Your task to perform on an android device: empty trash in the gmail app Image 0: 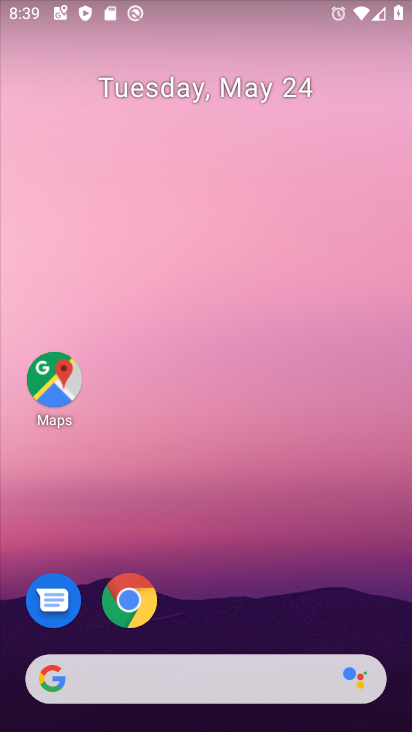
Step 0: drag from (196, 693) to (138, 84)
Your task to perform on an android device: empty trash in the gmail app Image 1: 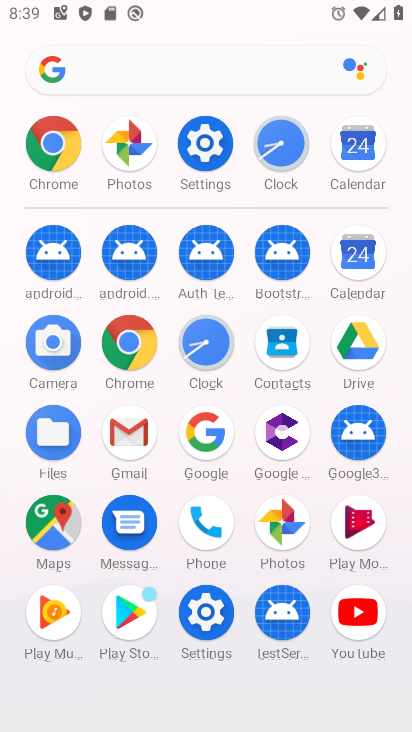
Step 1: click (125, 427)
Your task to perform on an android device: empty trash in the gmail app Image 2: 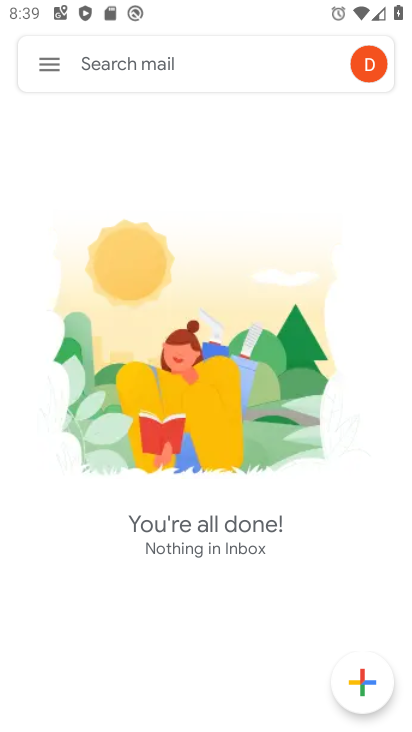
Step 2: click (47, 64)
Your task to perform on an android device: empty trash in the gmail app Image 3: 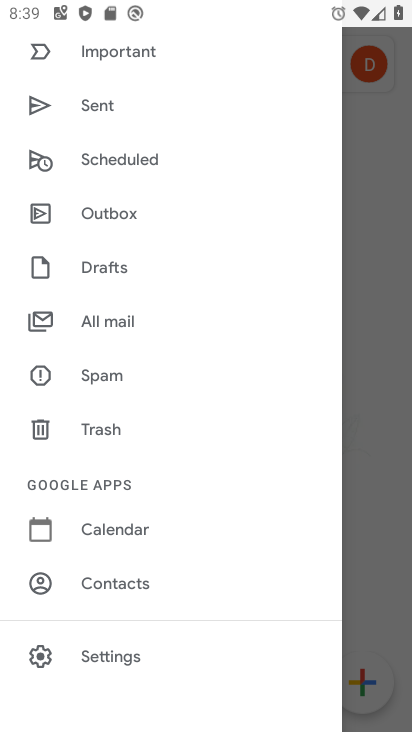
Step 3: click (87, 429)
Your task to perform on an android device: empty trash in the gmail app Image 4: 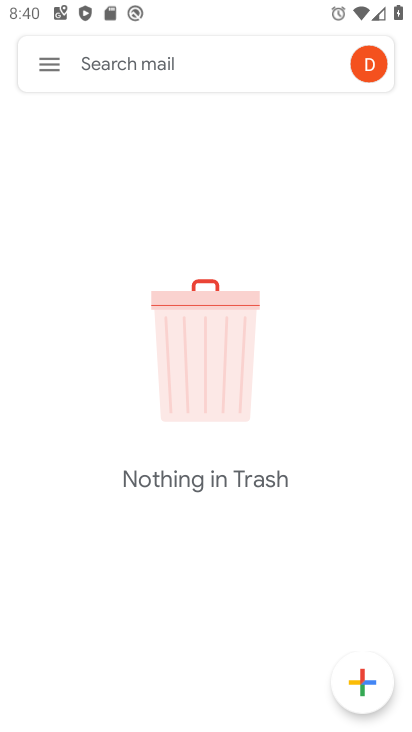
Step 4: task complete